Your task to perform on an android device: open a bookmark in the chrome app Image 0: 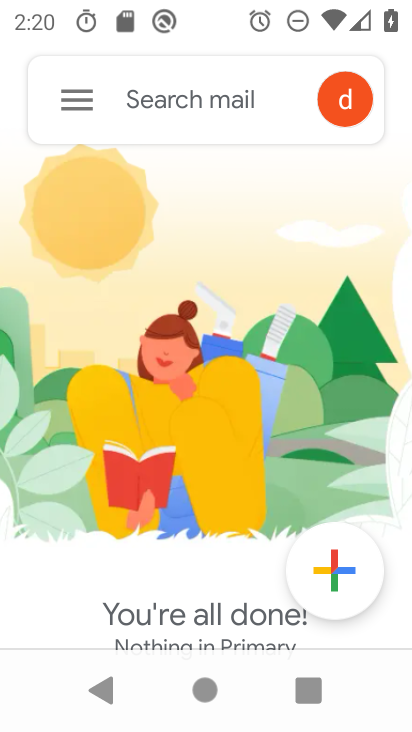
Step 0: press home button
Your task to perform on an android device: open a bookmark in the chrome app Image 1: 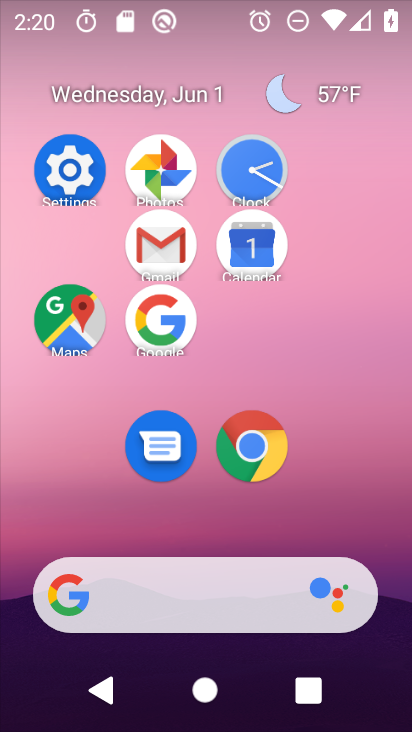
Step 1: click (267, 448)
Your task to perform on an android device: open a bookmark in the chrome app Image 2: 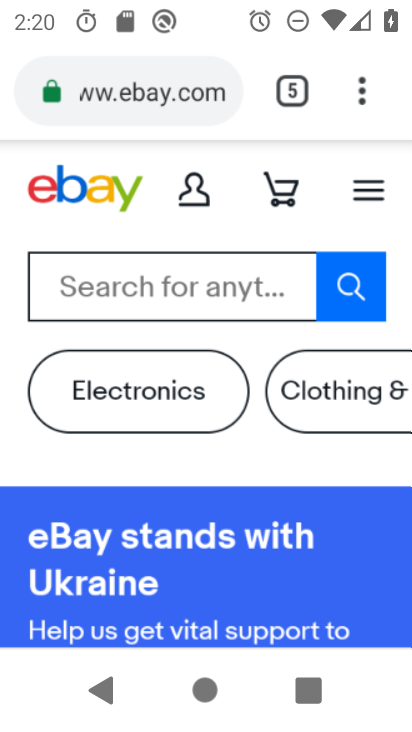
Step 2: click (359, 86)
Your task to perform on an android device: open a bookmark in the chrome app Image 3: 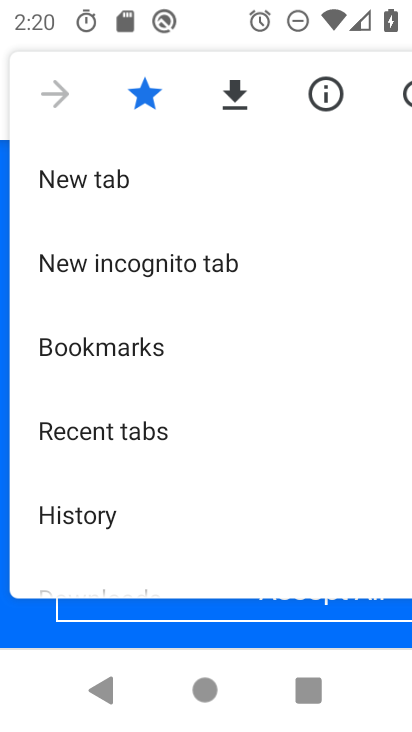
Step 3: click (206, 349)
Your task to perform on an android device: open a bookmark in the chrome app Image 4: 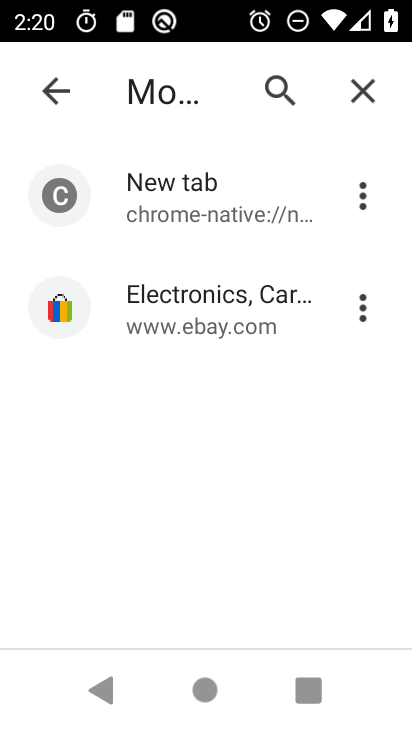
Step 4: click (193, 307)
Your task to perform on an android device: open a bookmark in the chrome app Image 5: 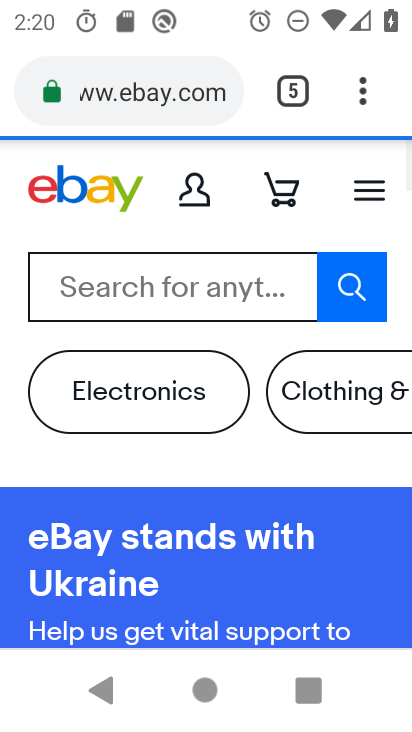
Step 5: task complete